Your task to perform on an android device: turn off translation in the chrome app Image 0: 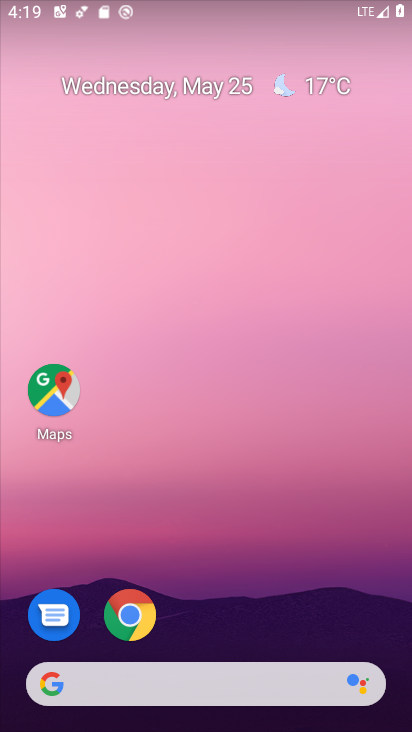
Step 0: drag from (292, 551) to (226, 719)
Your task to perform on an android device: turn off translation in the chrome app Image 1: 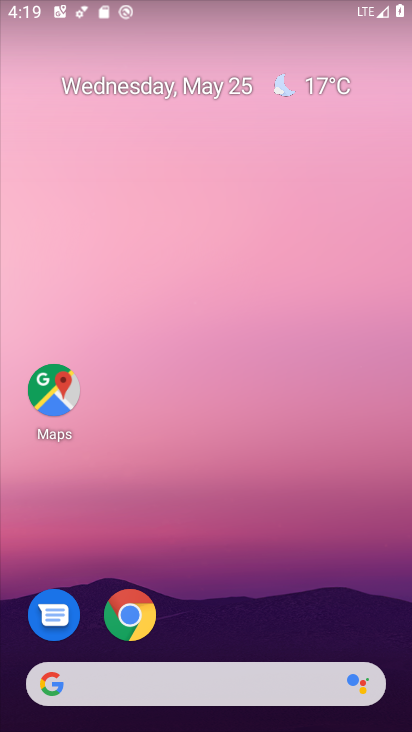
Step 1: click (139, 617)
Your task to perform on an android device: turn off translation in the chrome app Image 2: 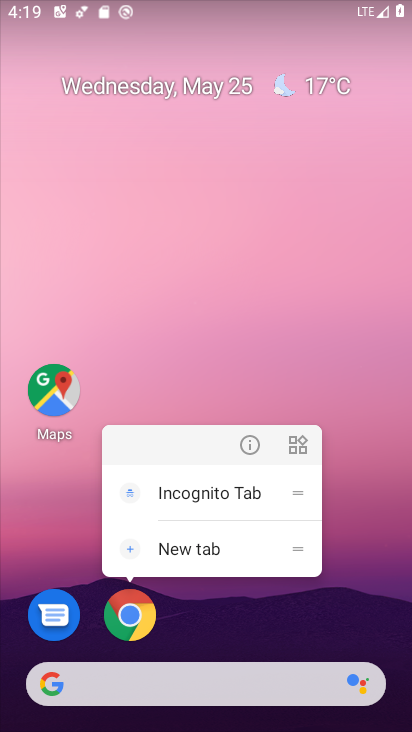
Step 2: click (129, 616)
Your task to perform on an android device: turn off translation in the chrome app Image 3: 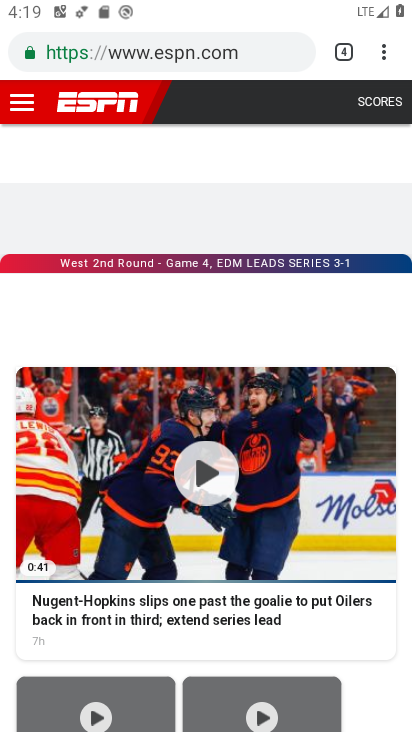
Step 3: click (382, 58)
Your task to perform on an android device: turn off translation in the chrome app Image 4: 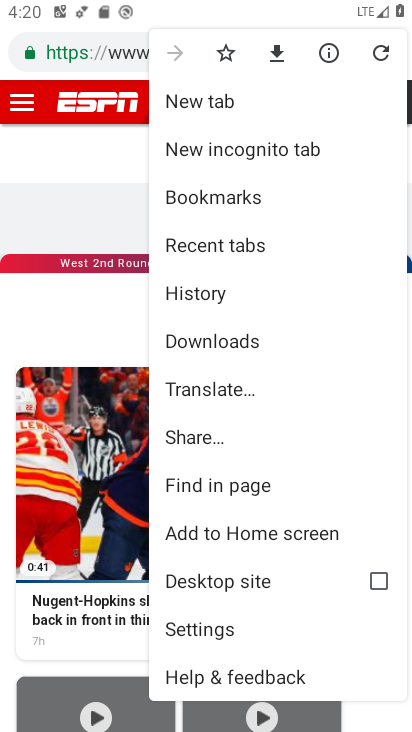
Step 4: click (242, 630)
Your task to perform on an android device: turn off translation in the chrome app Image 5: 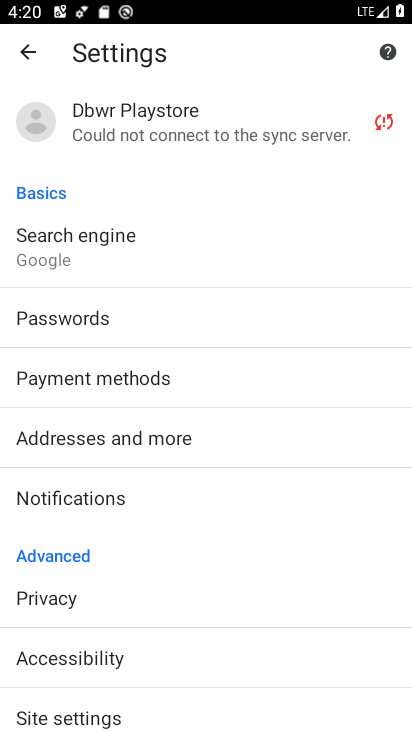
Step 5: drag from (161, 576) to (167, 252)
Your task to perform on an android device: turn off translation in the chrome app Image 6: 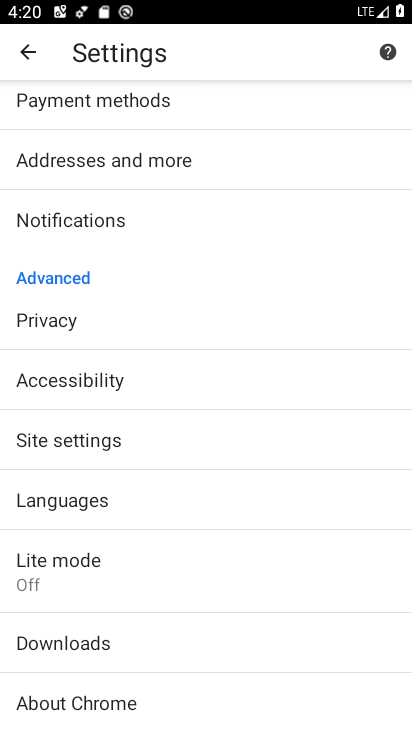
Step 6: click (130, 499)
Your task to perform on an android device: turn off translation in the chrome app Image 7: 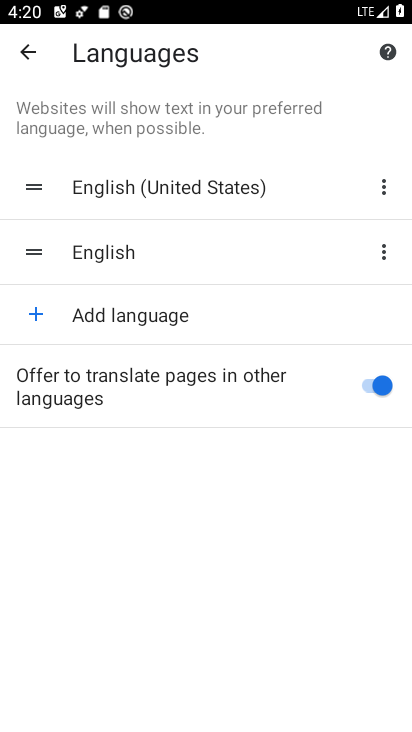
Step 7: click (386, 379)
Your task to perform on an android device: turn off translation in the chrome app Image 8: 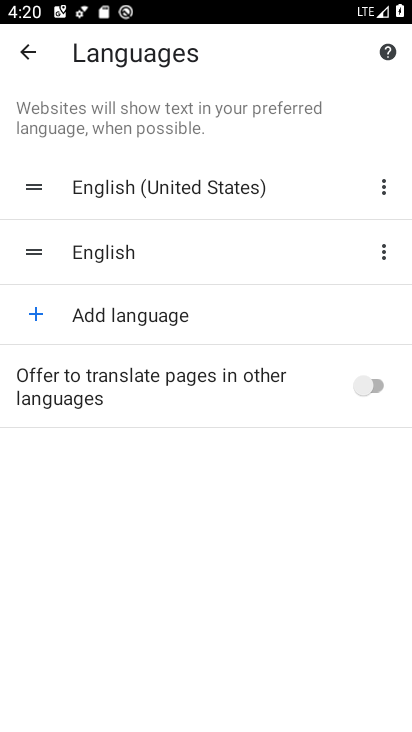
Step 8: task complete